Your task to perform on an android device: turn off sleep mode Image 0: 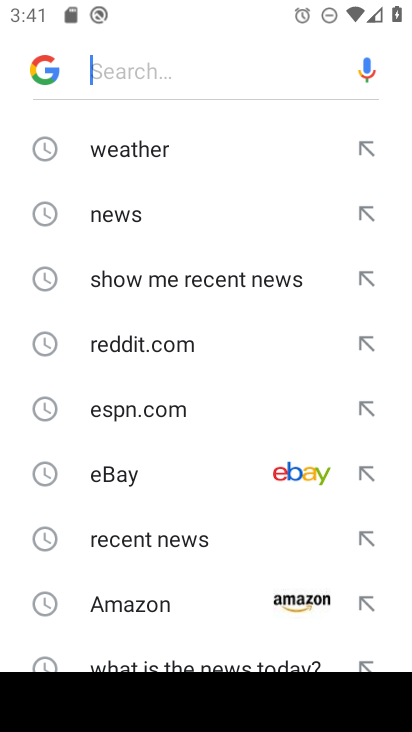
Step 0: press home button
Your task to perform on an android device: turn off sleep mode Image 1: 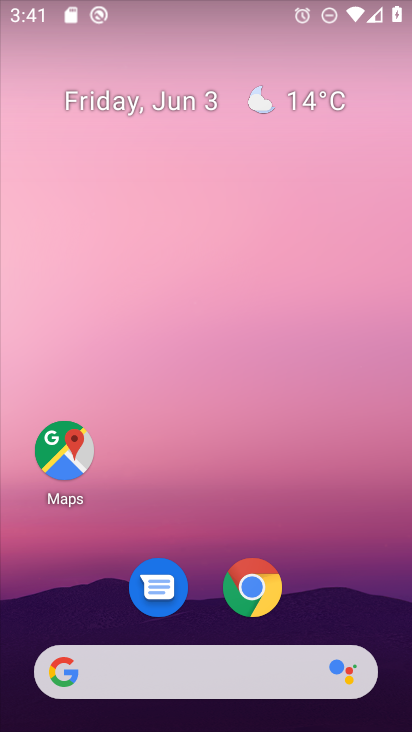
Step 1: drag from (214, 703) to (211, 89)
Your task to perform on an android device: turn off sleep mode Image 2: 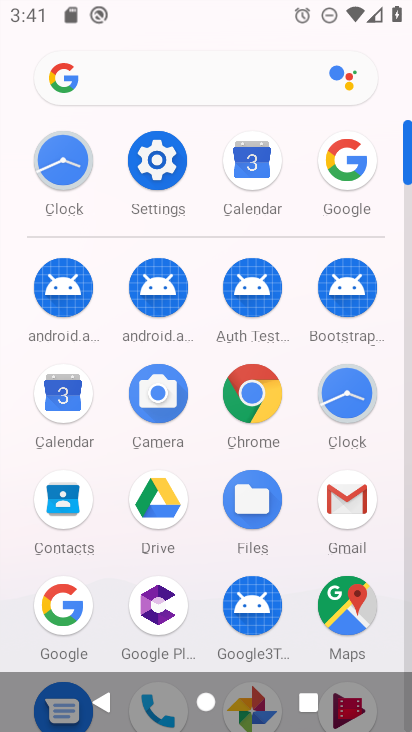
Step 2: click (151, 148)
Your task to perform on an android device: turn off sleep mode Image 3: 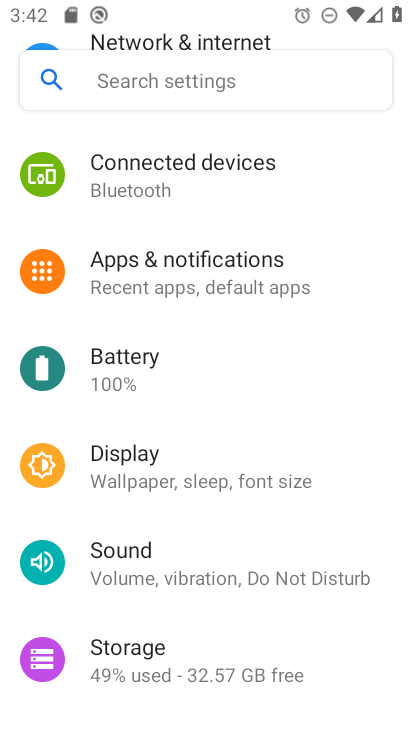
Step 3: task complete